Your task to perform on an android device: open app "Duolingo: language lessons" (install if not already installed) Image 0: 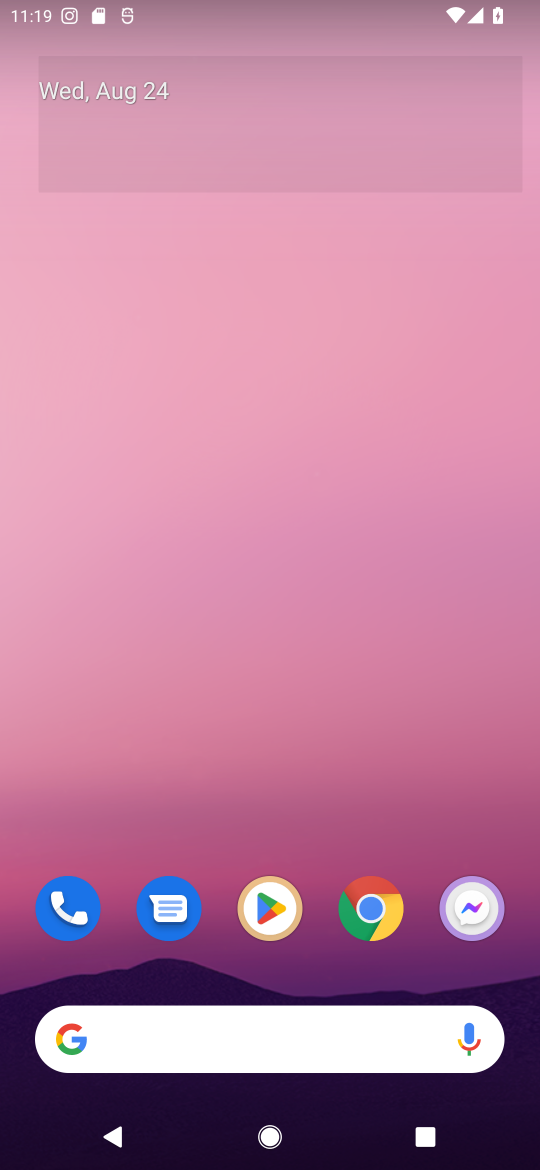
Step 0: click (257, 885)
Your task to perform on an android device: open app "Duolingo: language lessons" (install if not already installed) Image 1: 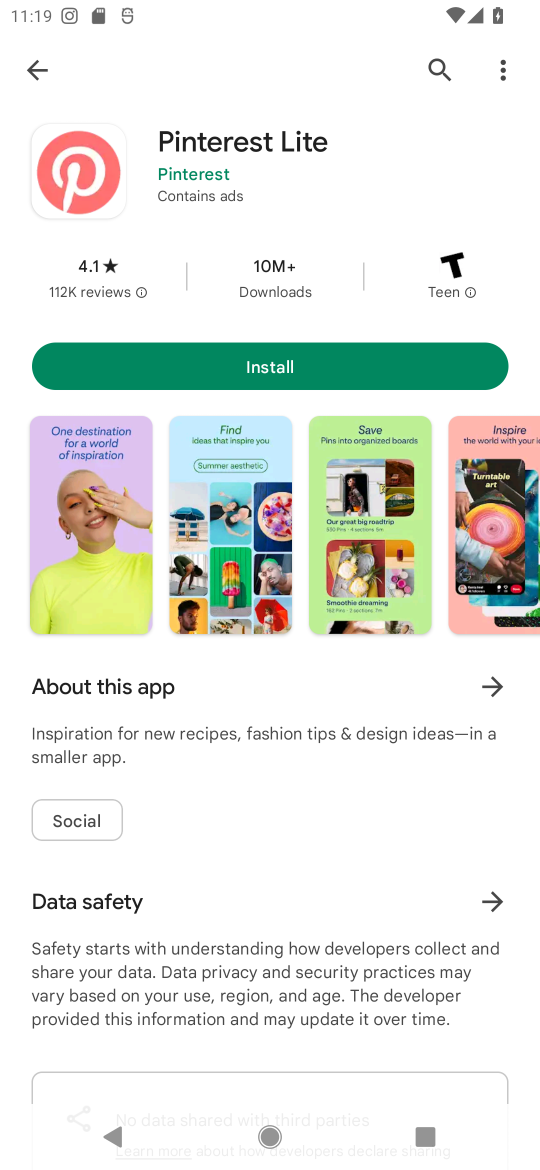
Step 1: click (22, 69)
Your task to perform on an android device: open app "Duolingo: language lessons" (install if not already installed) Image 2: 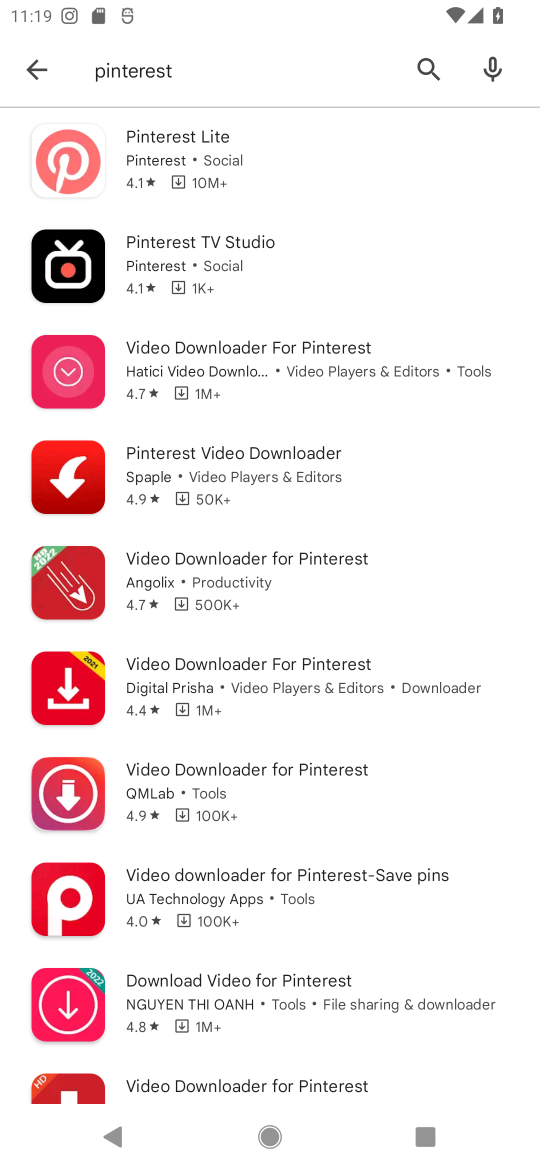
Step 2: click (22, 69)
Your task to perform on an android device: open app "Duolingo: language lessons" (install if not already installed) Image 3: 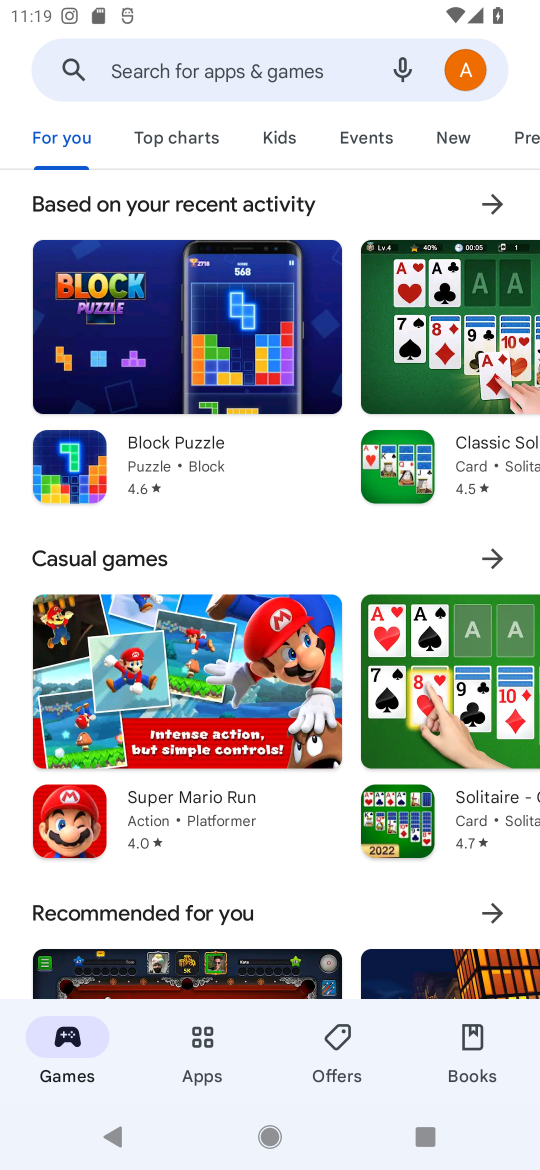
Step 3: click (162, 71)
Your task to perform on an android device: open app "Duolingo: language lessons" (install if not already installed) Image 4: 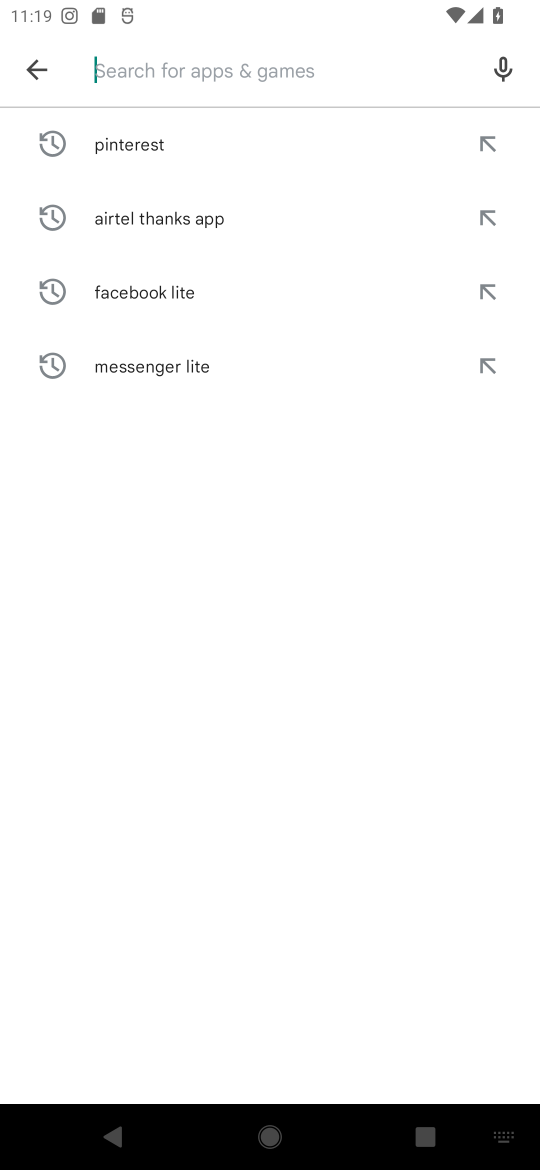
Step 4: type ""
Your task to perform on an android device: open app "Duolingo: language lessons" (install if not already installed) Image 5: 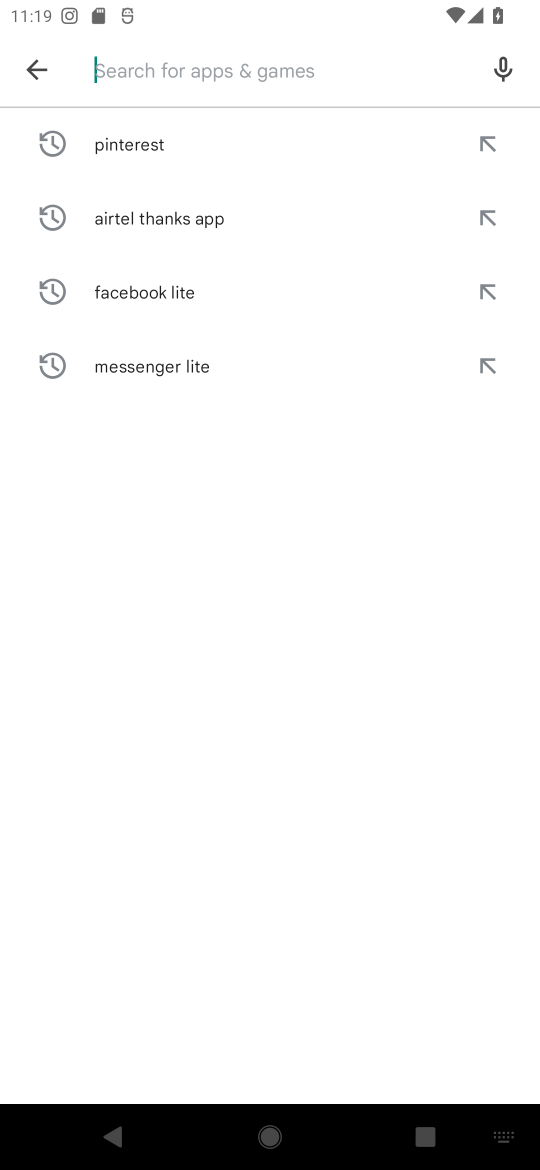
Step 5: drag from (397, 864) to (84, 1154)
Your task to perform on an android device: open app "Duolingo: language lessons" (install if not already installed) Image 6: 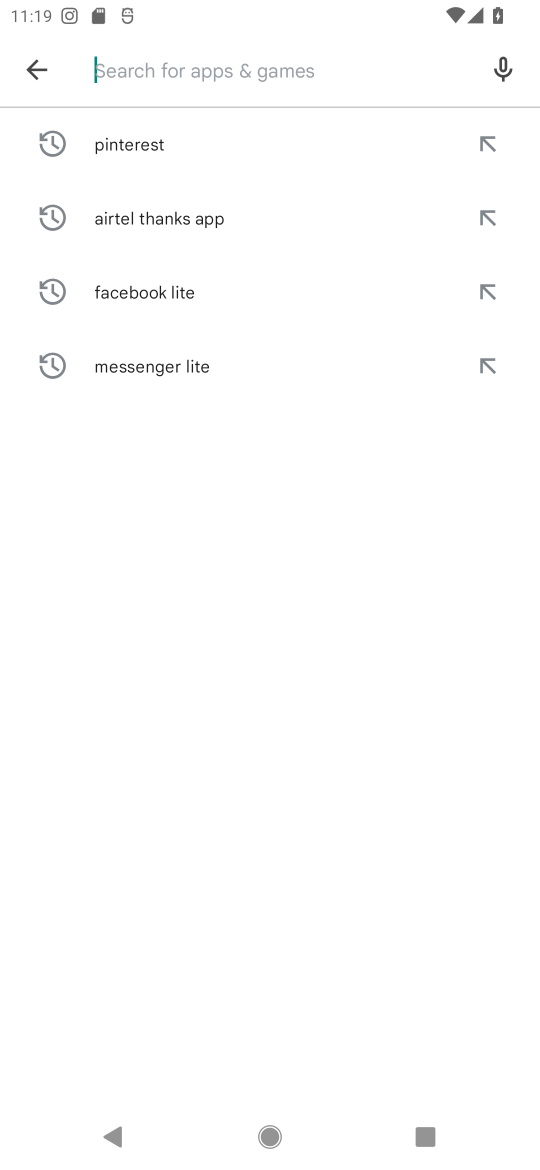
Step 6: type "Duolingo"
Your task to perform on an android device: open app "Duolingo: language lessons" (install if not already installed) Image 7: 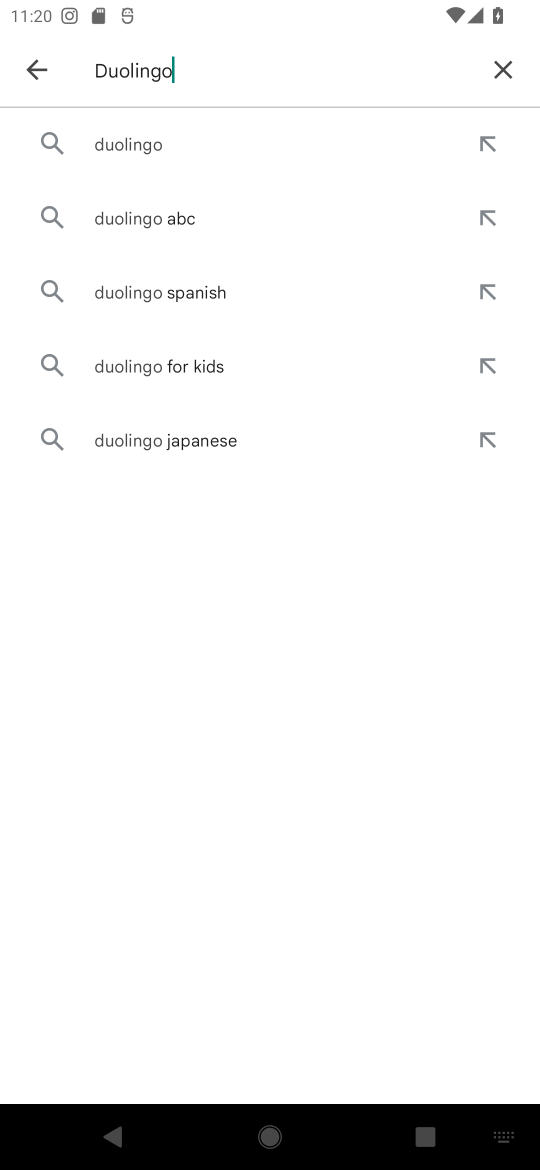
Step 7: click (165, 140)
Your task to perform on an android device: open app "Duolingo: language lessons" (install if not already installed) Image 8: 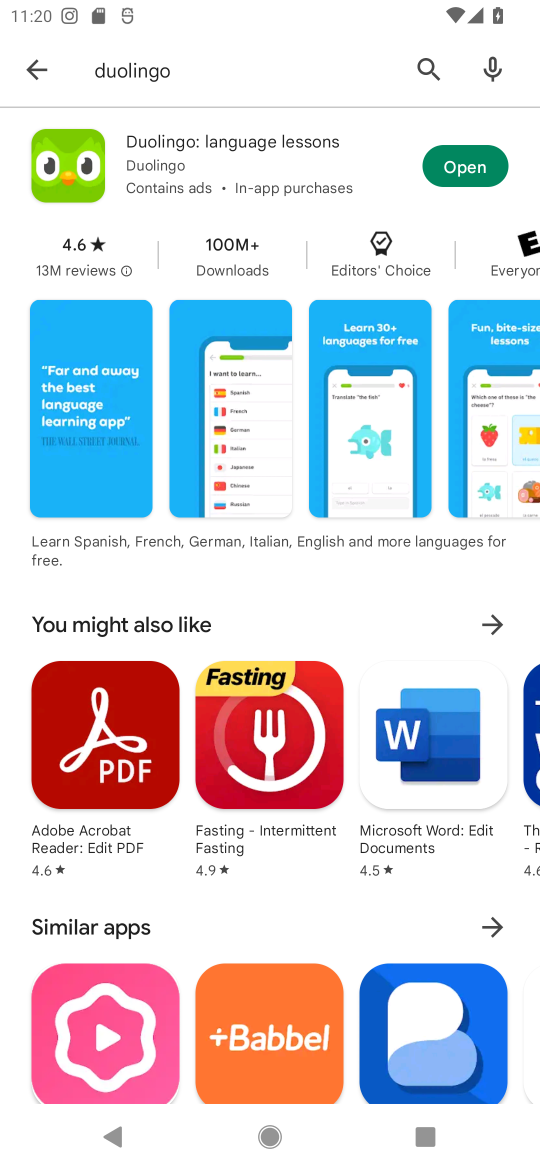
Step 8: click (490, 174)
Your task to perform on an android device: open app "Duolingo: language lessons" (install if not already installed) Image 9: 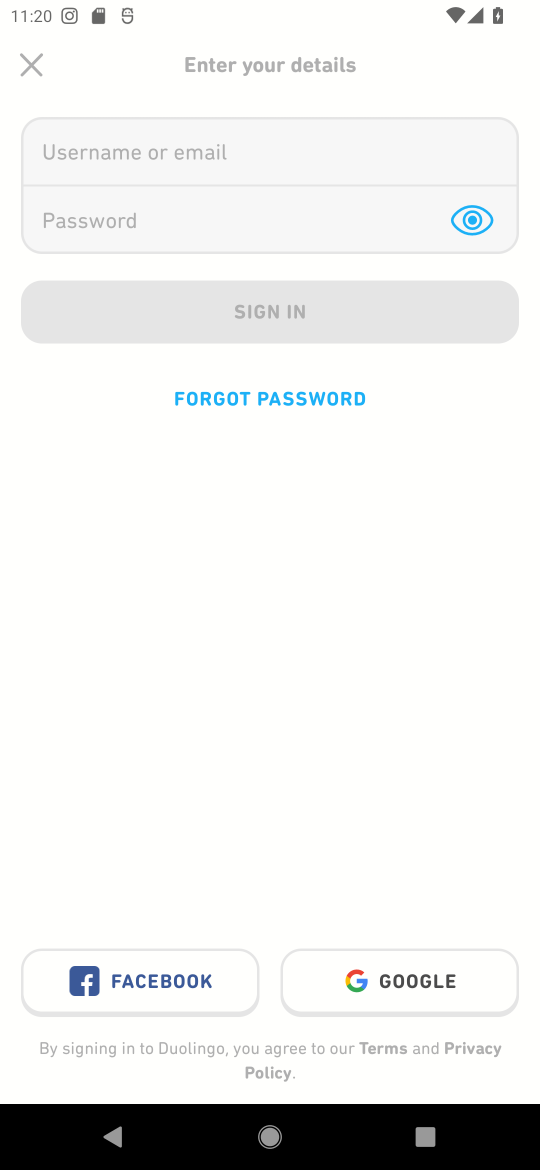
Step 9: task complete